Your task to perform on an android device: Do I have any events today? Image 0: 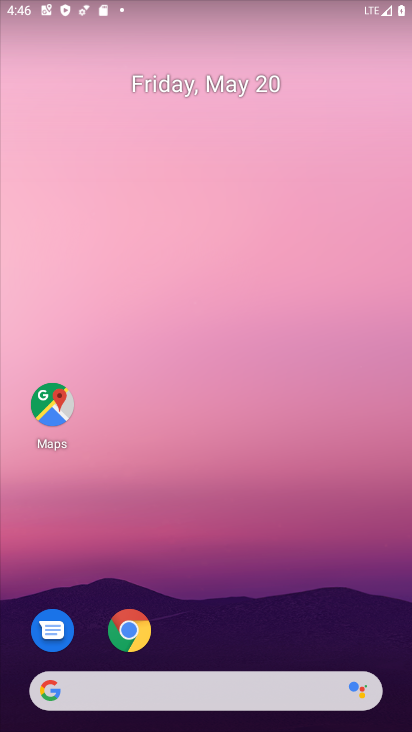
Step 0: drag from (251, 589) to (242, 65)
Your task to perform on an android device: Do I have any events today? Image 1: 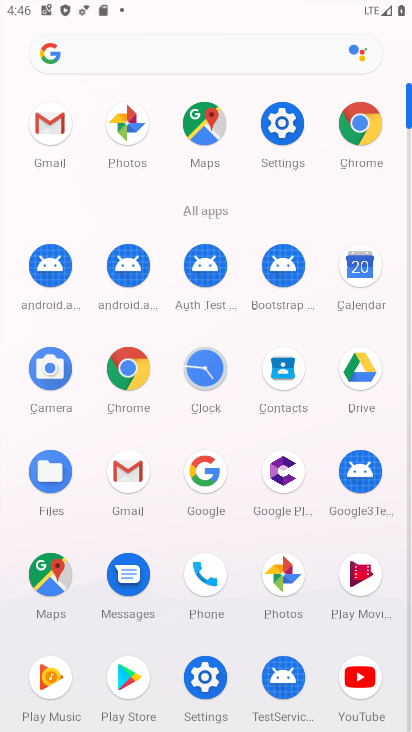
Step 1: click (362, 271)
Your task to perform on an android device: Do I have any events today? Image 2: 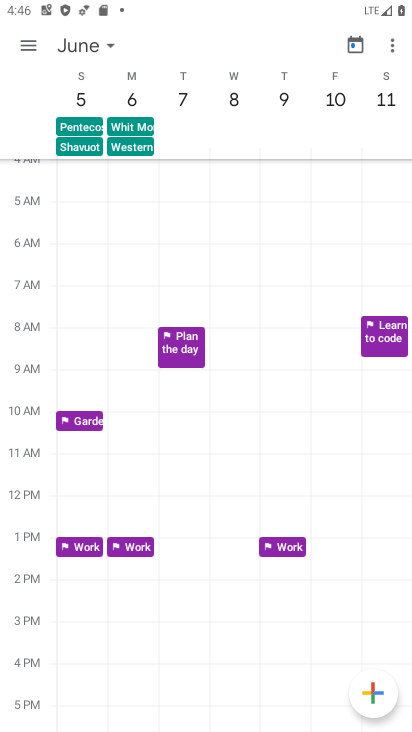
Step 2: drag from (94, 266) to (391, 296)
Your task to perform on an android device: Do I have any events today? Image 3: 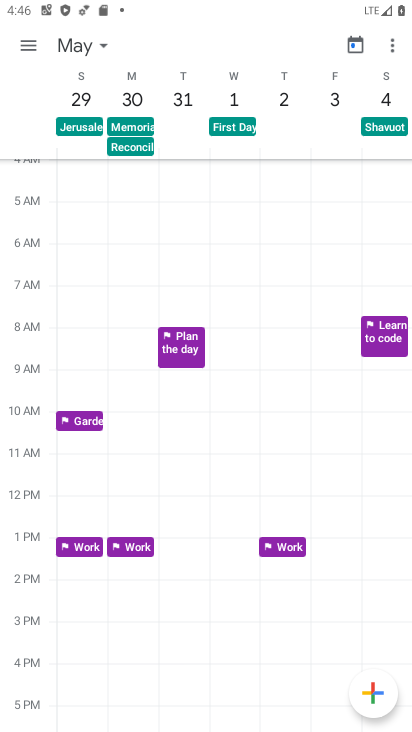
Step 3: drag from (72, 279) to (398, 288)
Your task to perform on an android device: Do I have any events today? Image 4: 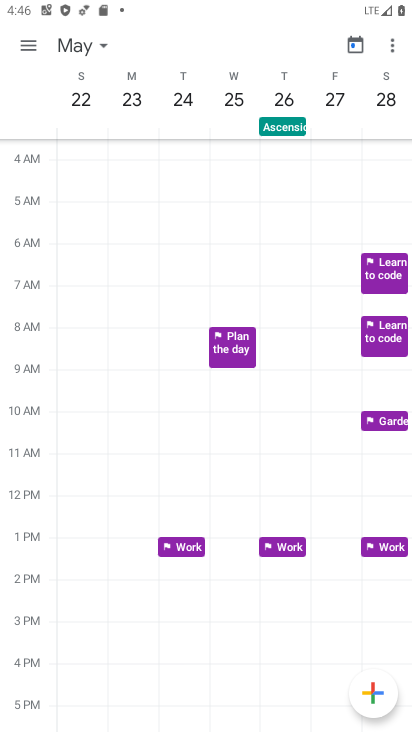
Step 4: drag from (93, 212) to (401, 261)
Your task to perform on an android device: Do I have any events today? Image 5: 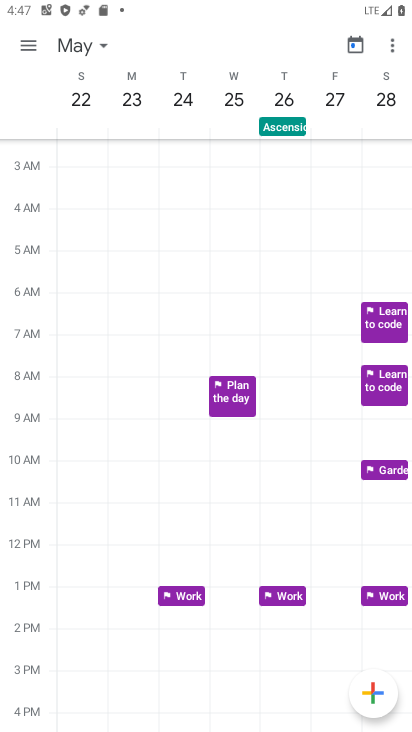
Step 5: drag from (110, 358) to (410, 370)
Your task to perform on an android device: Do I have any events today? Image 6: 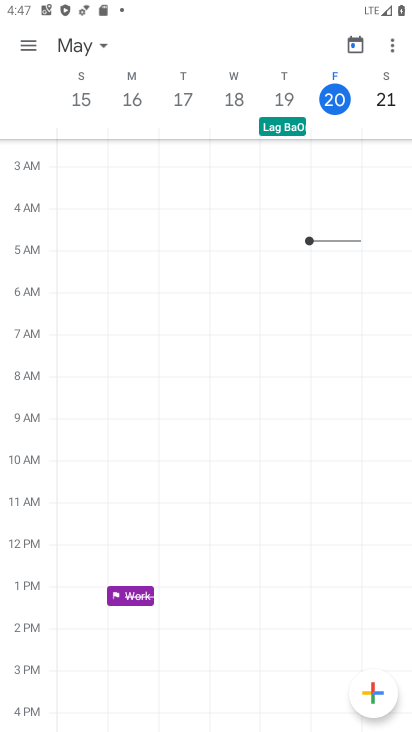
Step 6: click (330, 99)
Your task to perform on an android device: Do I have any events today? Image 7: 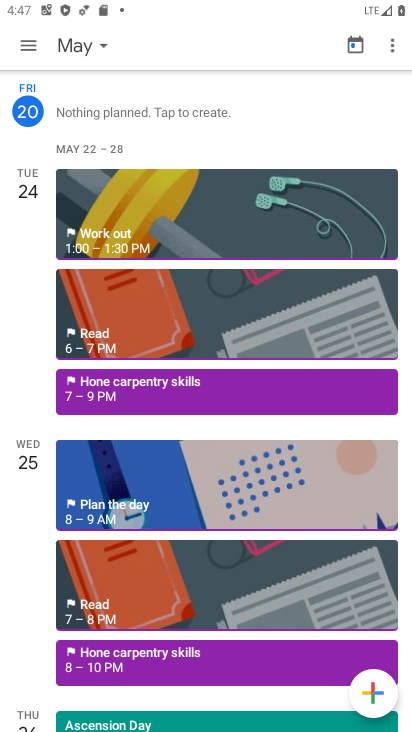
Step 7: task complete